Your task to perform on an android device: What's the news this afternoon? Image 0: 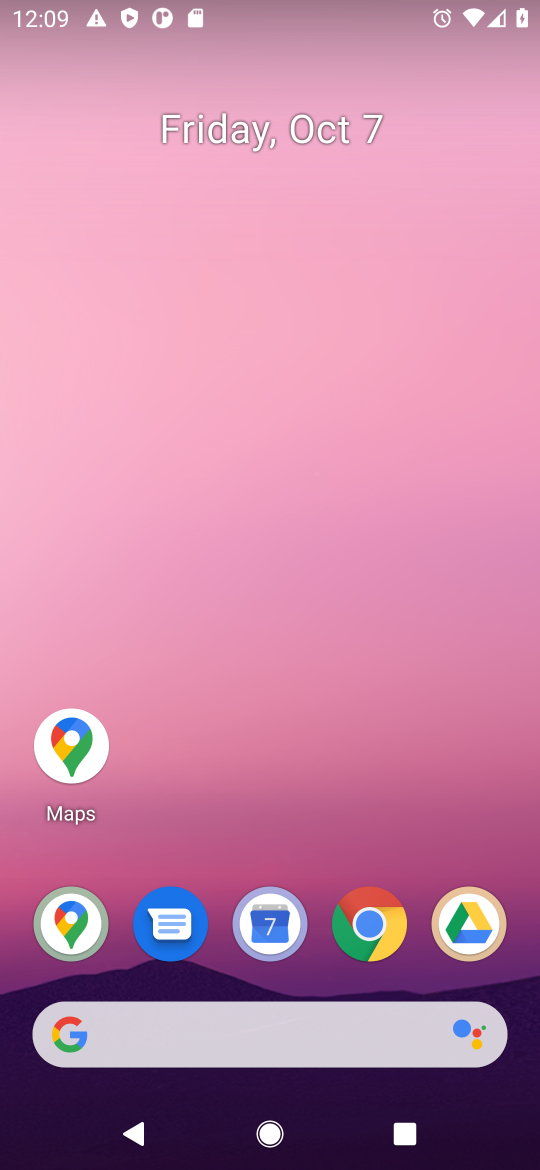
Step 0: click (378, 929)
Your task to perform on an android device: What's the news this afternoon? Image 1: 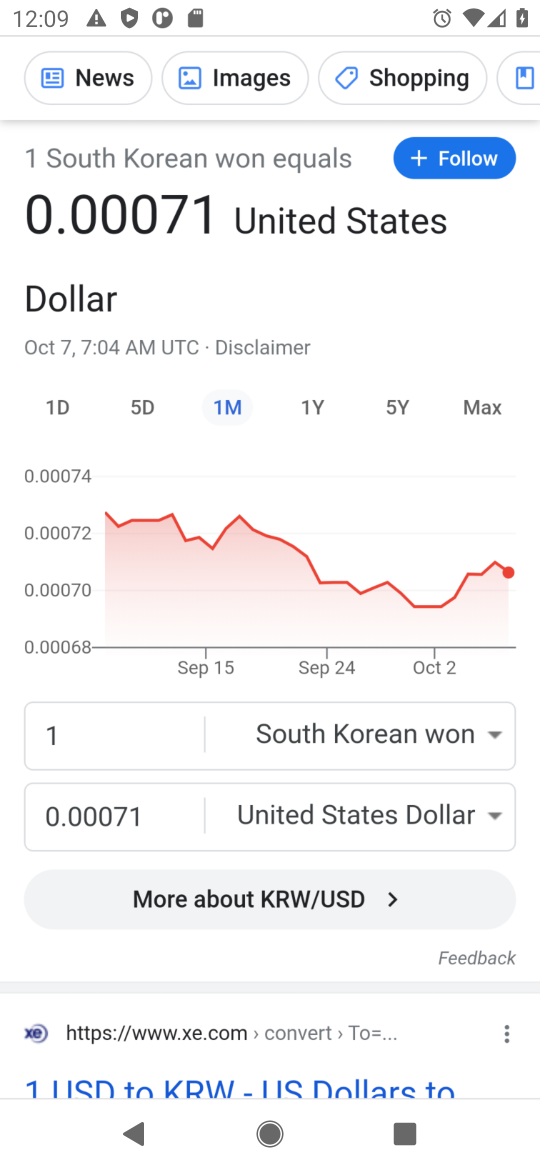
Step 1: click (376, 923)
Your task to perform on an android device: What's the news this afternoon? Image 2: 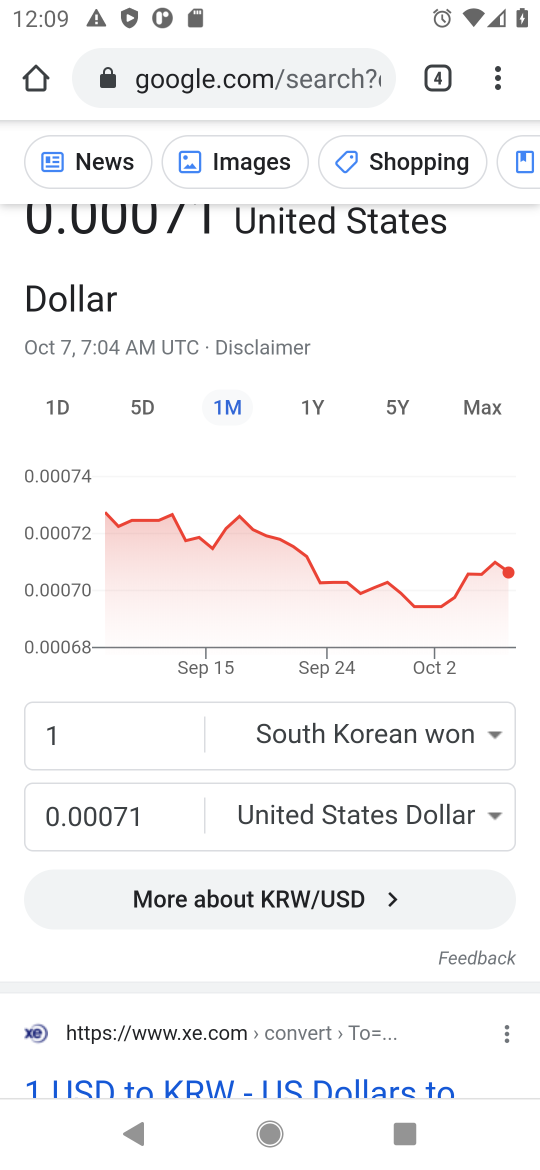
Step 2: click (286, 80)
Your task to perform on an android device: What's the news this afternoon? Image 3: 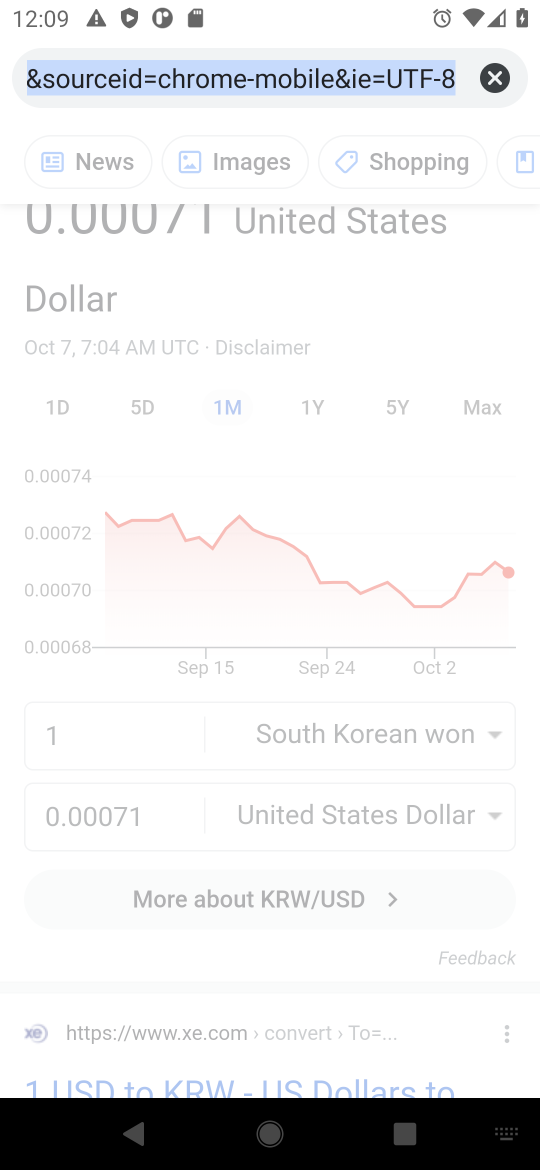
Step 3: click (499, 72)
Your task to perform on an android device: What's the news this afternoon? Image 4: 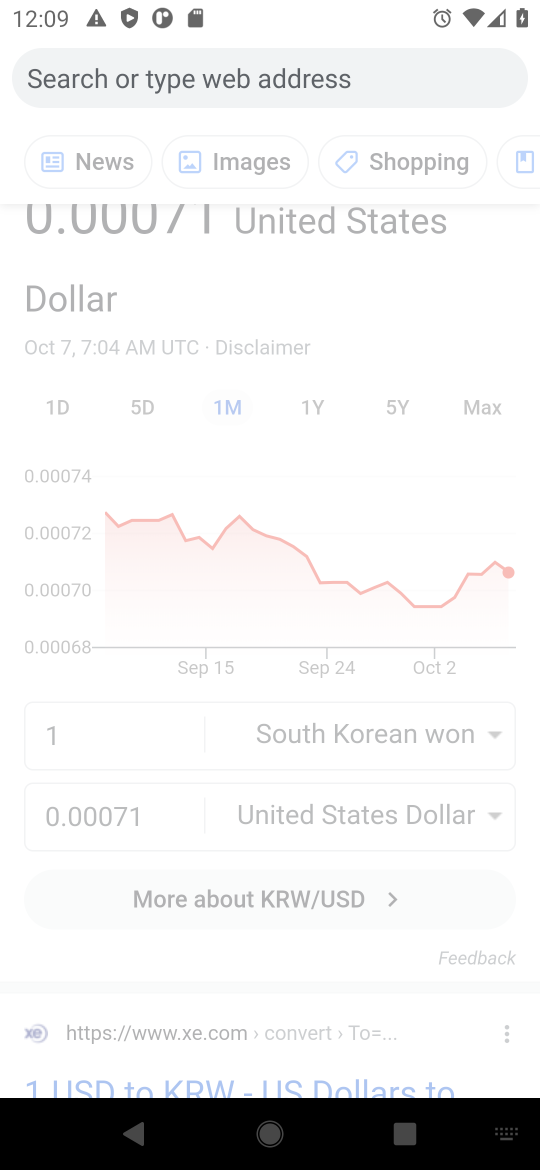
Step 4: type "news this afternoon"
Your task to perform on an android device: What's the news this afternoon? Image 5: 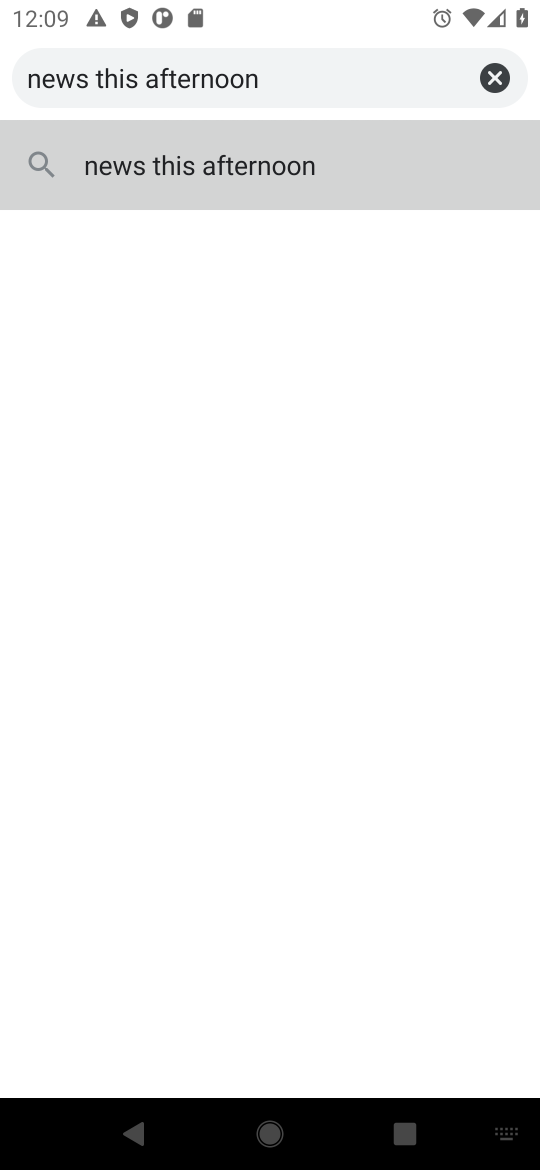
Step 5: click (216, 163)
Your task to perform on an android device: What's the news this afternoon? Image 6: 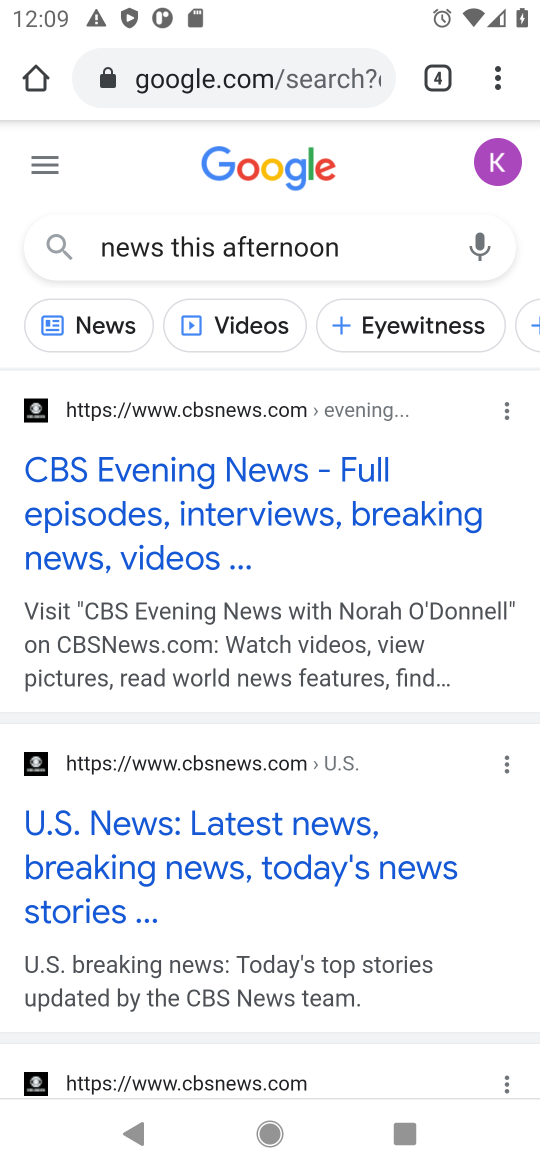
Step 6: click (86, 320)
Your task to perform on an android device: What's the news this afternoon? Image 7: 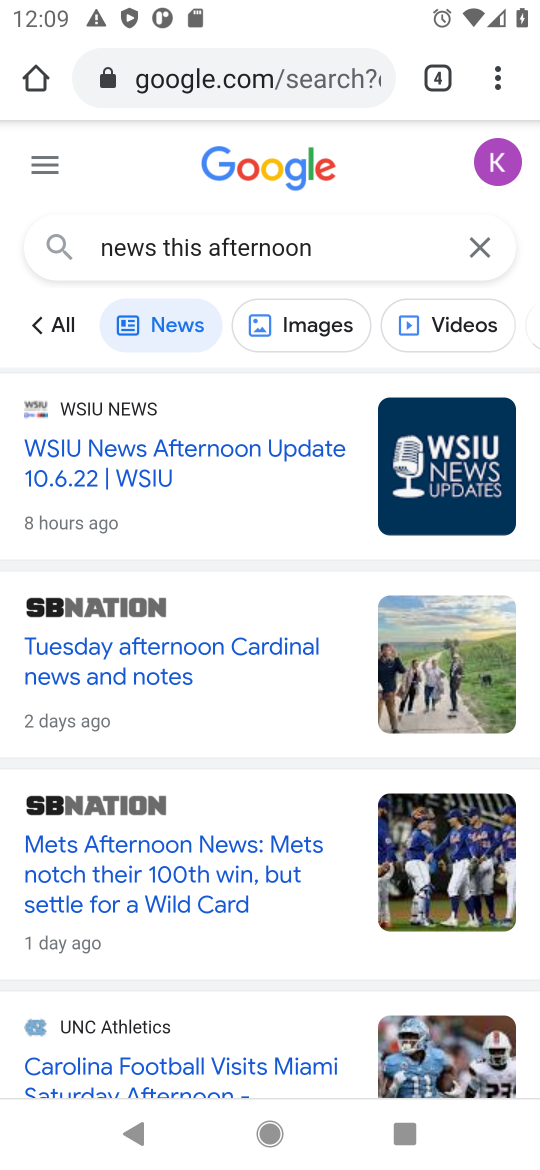
Step 7: task complete